Your task to perform on an android device: move a message to another label in the gmail app Image 0: 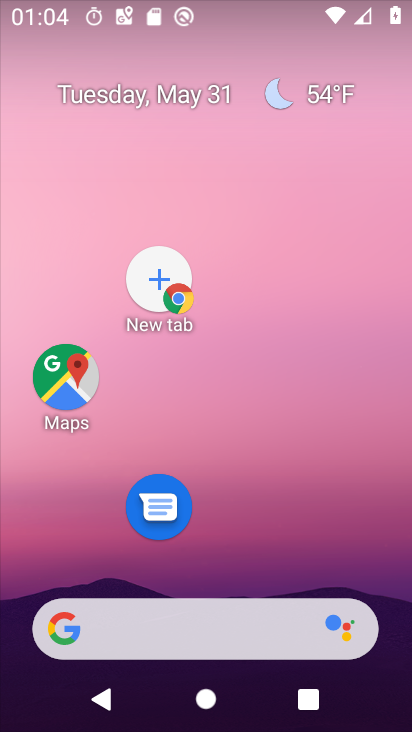
Step 0: drag from (198, 359) to (159, 171)
Your task to perform on an android device: move a message to another label in the gmail app Image 1: 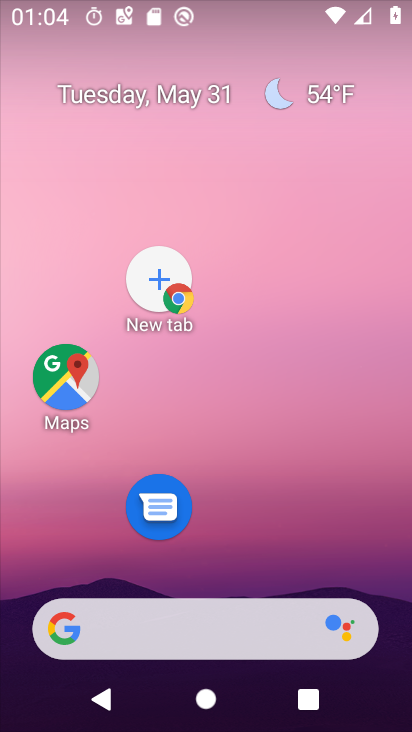
Step 1: drag from (256, 673) to (178, 145)
Your task to perform on an android device: move a message to another label in the gmail app Image 2: 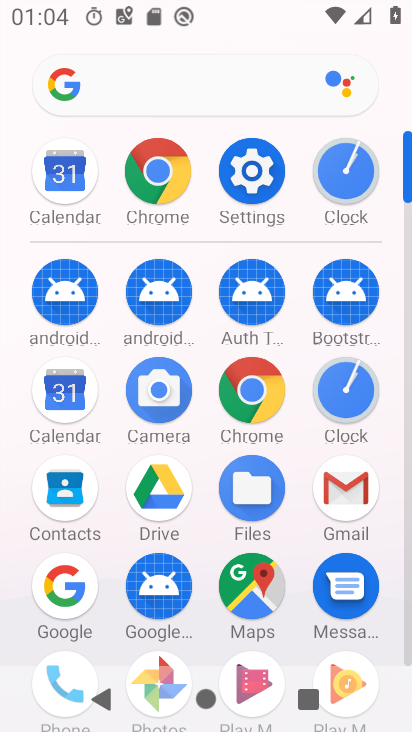
Step 2: click (337, 484)
Your task to perform on an android device: move a message to another label in the gmail app Image 3: 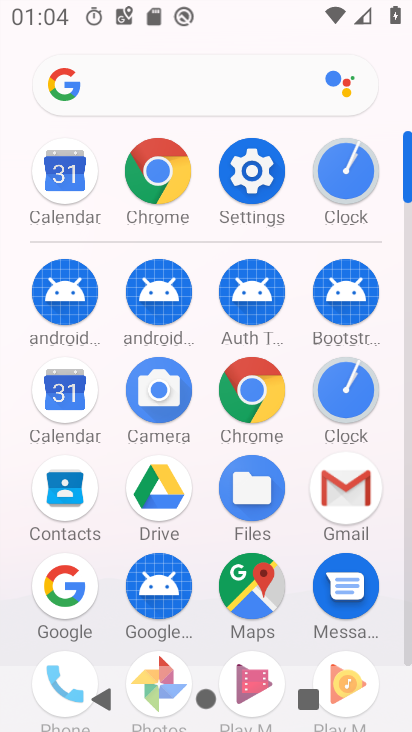
Step 3: click (337, 484)
Your task to perform on an android device: move a message to another label in the gmail app Image 4: 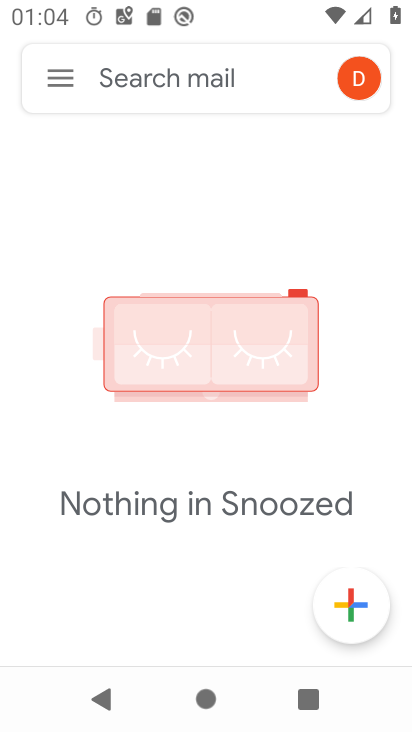
Step 4: click (342, 490)
Your task to perform on an android device: move a message to another label in the gmail app Image 5: 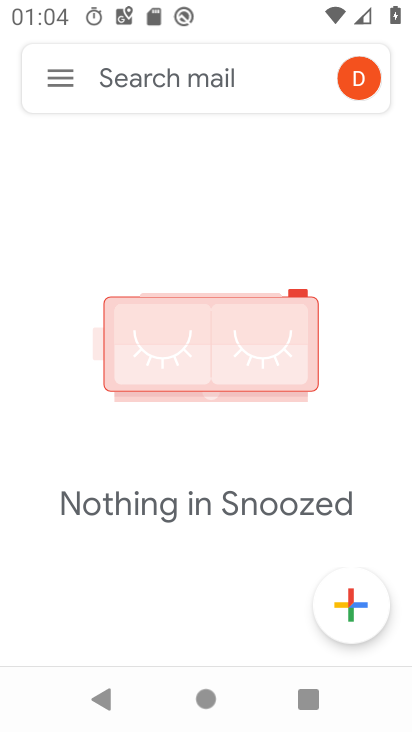
Step 5: click (62, 89)
Your task to perform on an android device: move a message to another label in the gmail app Image 6: 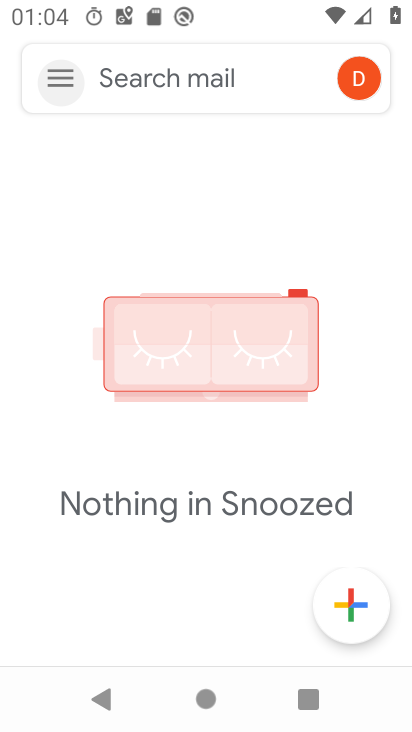
Step 6: click (62, 89)
Your task to perform on an android device: move a message to another label in the gmail app Image 7: 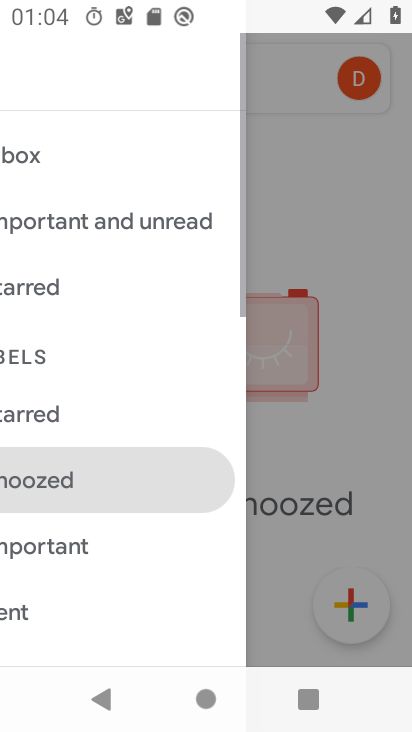
Step 7: click (62, 89)
Your task to perform on an android device: move a message to another label in the gmail app Image 8: 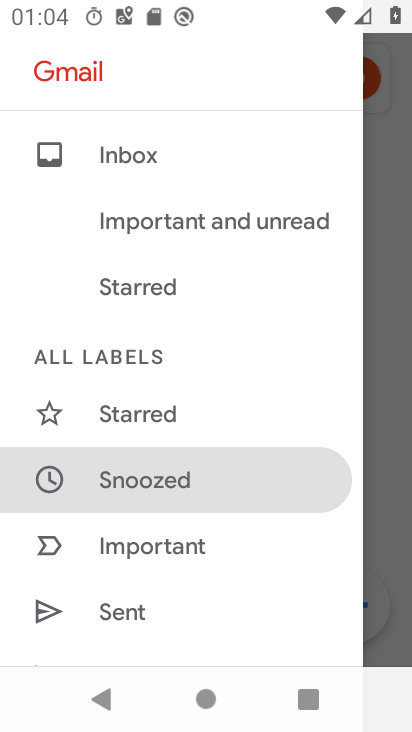
Step 8: drag from (147, 255) to (191, 523)
Your task to perform on an android device: move a message to another label in the gmail app Image 9: 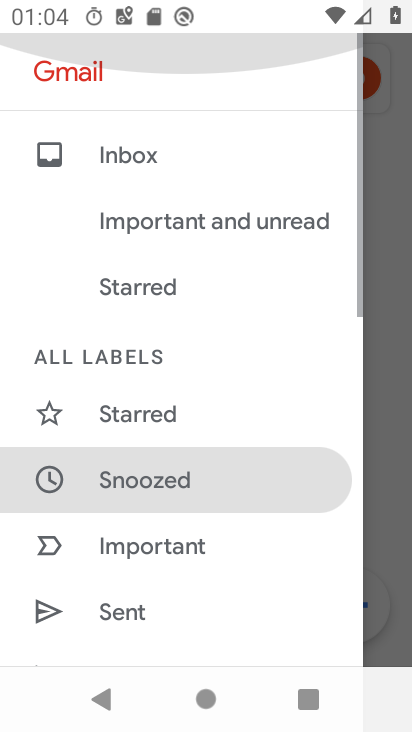
Step 9: drag from (167, 317) to (209, 594)
Your task to perform on an android device: move a message to another label in the gmail app Image 10: 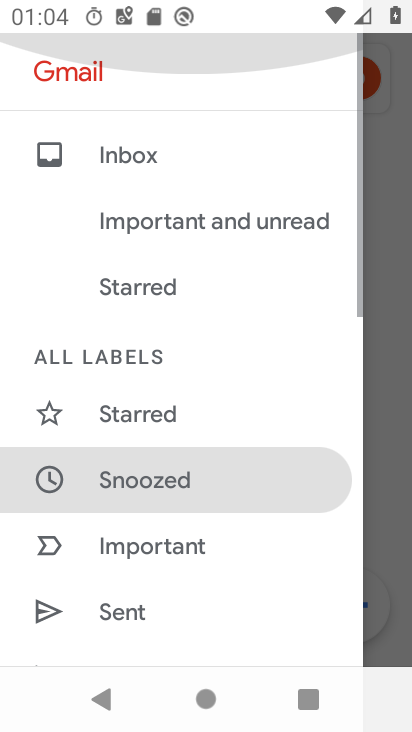
Step 10: drag from (173, 282) to (200, 557)
Your task to perform on an android device: move a message to another label in the gmail app Image 11: 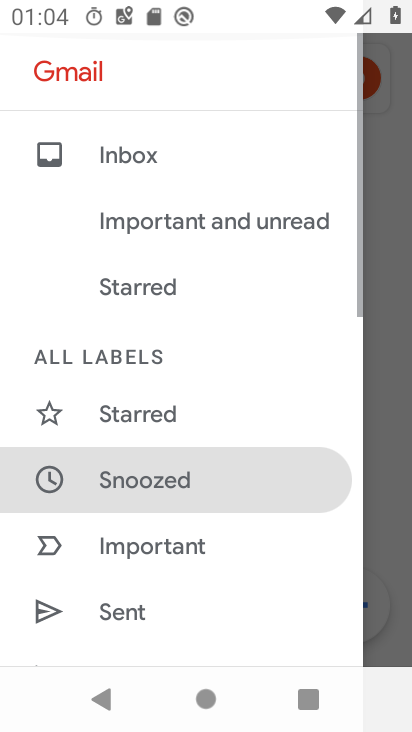
Step 11: drag from (165, 273) to (164, 544)
Your task to perform on an android device: move a message to another label in the gmail app Image 12: 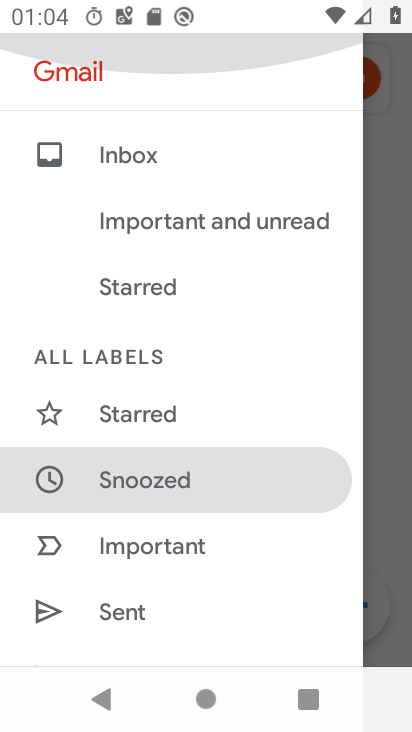
Step 12: drag from (169, 474) to (169, 201)
Your task to perform on an android device: move a message to another label in the gmail app Image 13: 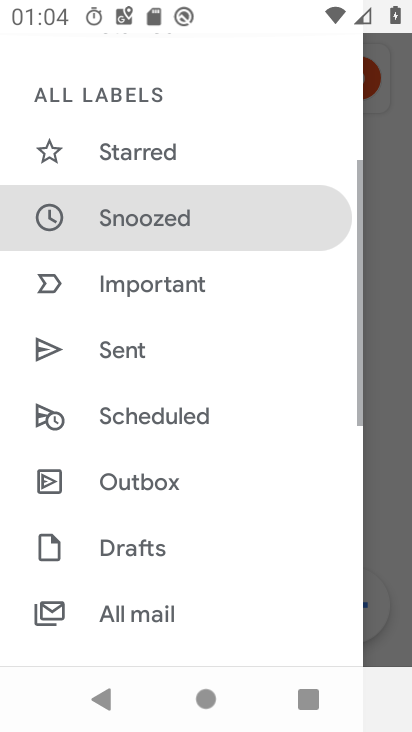
Step 13: drag from (191, 498) to (143, 278)
Your task to perform on an android device: move a message to another label in the gmail app Image 14: 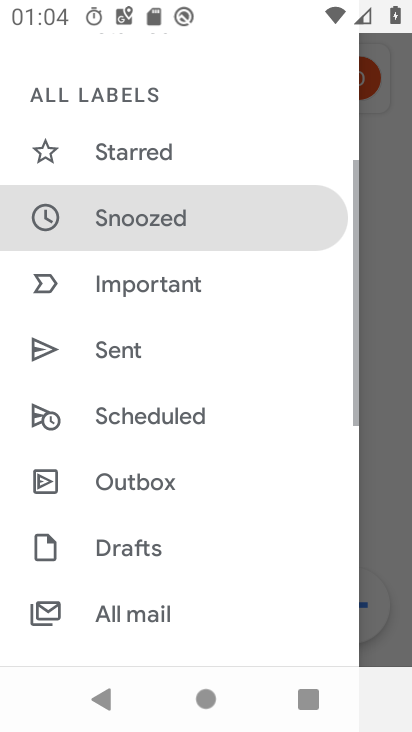
Step 14: drag from (146, 449) to (160, 261)
Your task to perform on an android device: move a message to another label in the gmail app Image 15: 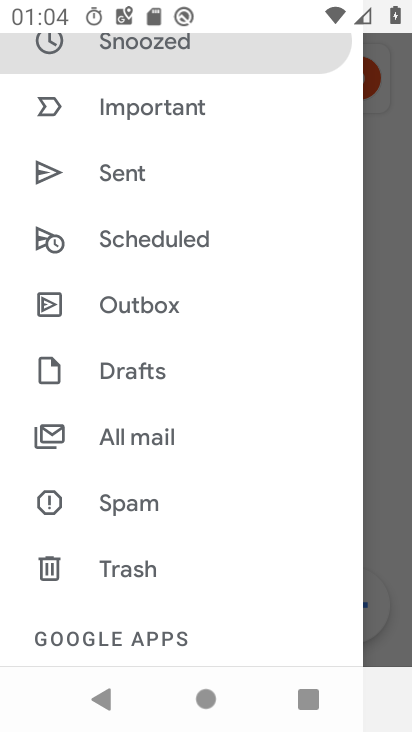
Step 15: click (140, 429)
Your task to perform on an android device: move a message to another label in the gmail app Image 16: 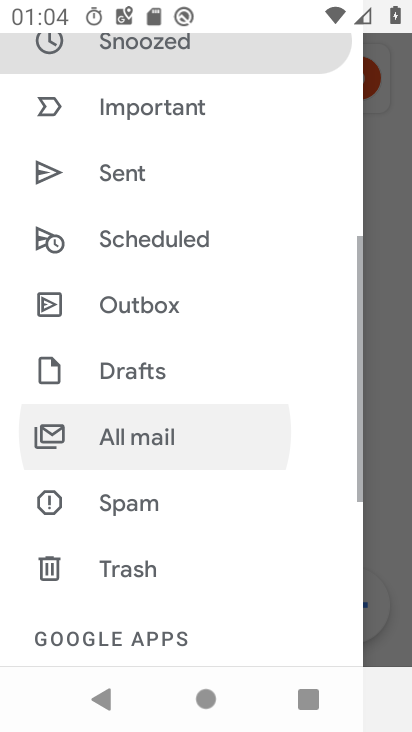
Step 16: click (140, 429)
Your task to perform on an android device: move a message to another label in the gmail app Image 17: 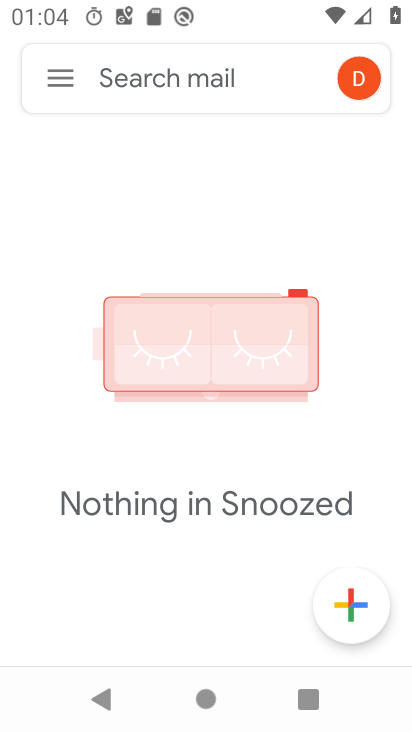
Step 17: click (136, 438)
Your task to perform on an android device: move a message to another label in the gmail app Image 18: 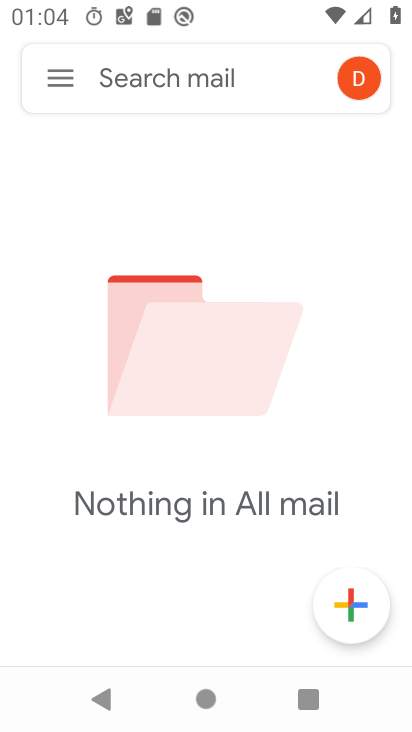
Step 18: task complete